Your task to perform on an android device: turn off sleep mode Image 0: 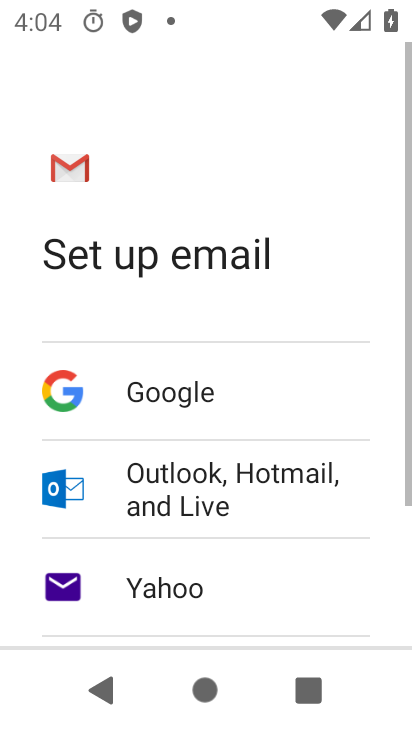
Step 0: press home button
Your task to perform on an android device: turn off sleep mode Image 1: 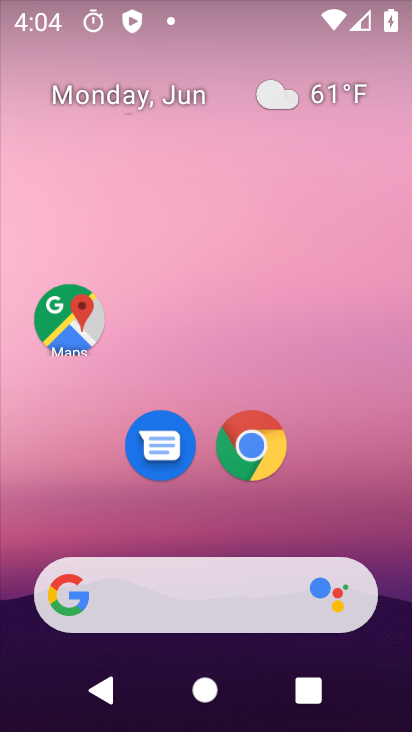
Step 1: task complete